Your task to perform on an android device: turn on translation in the chrome app Image 0: 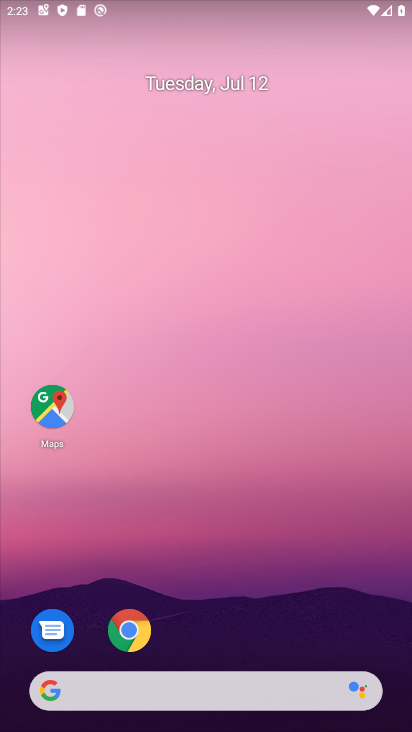
Step 0: click (125, 634)
Your task to perform on an android device: turn on translation in the chrome app Image 1: 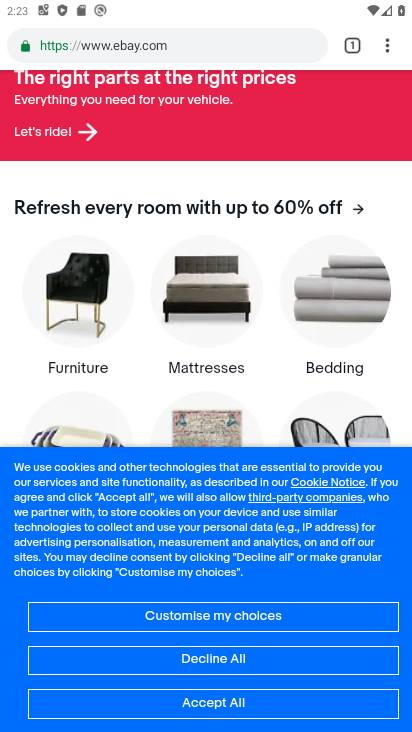
Step 1: click (385, 50)
Your task to perform on an android device: turn on translation in the chrome app Image 2: 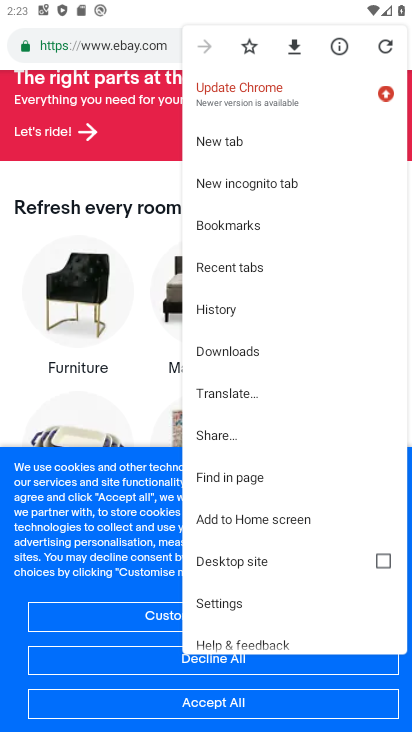
Step 2: click (225, 606)
Your task to perform on an android device: turn on translation in the chrome app Image 3: 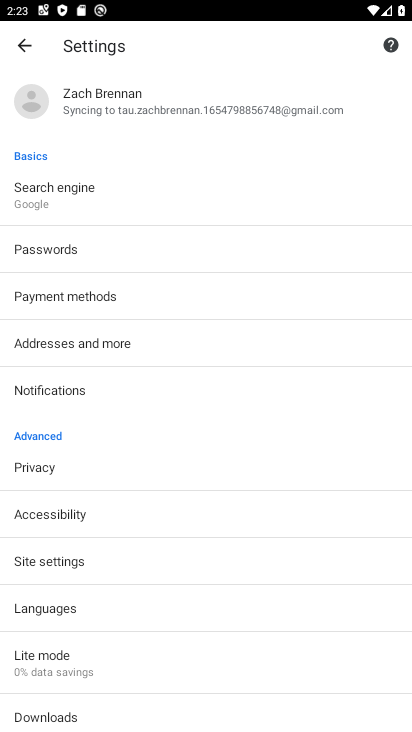
Step 3: click (35, 606)
Your task to perform on an android device: turn on translation in the chrome app Image 4: 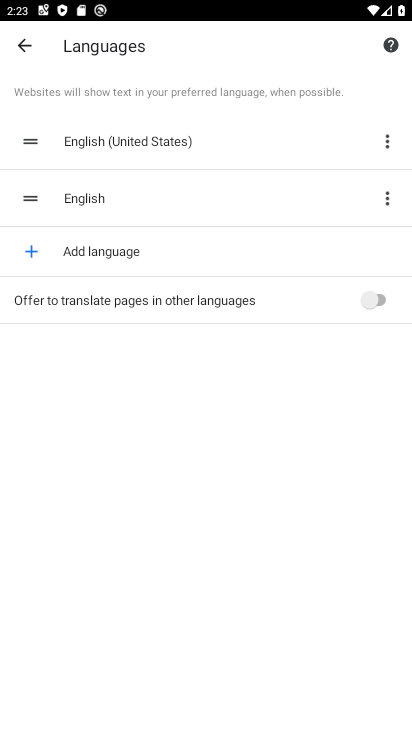
Step 4: click (385, 295)
Your task to perform on an android device: turn on translation in the chrome app Image 5: 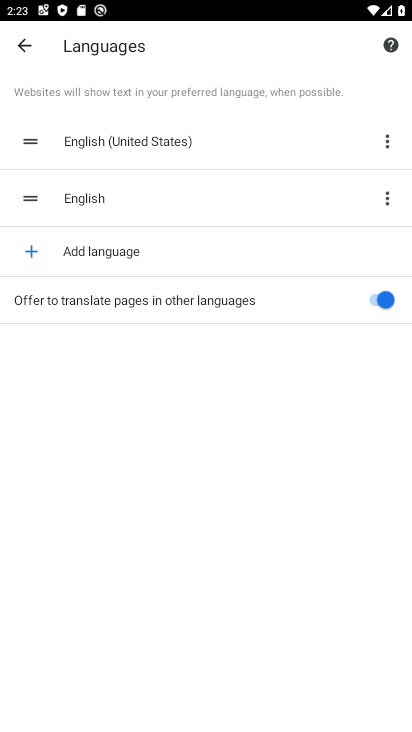
Step 5: task complete